Your task to perform on an android device: turn off sleep mode Image 0: 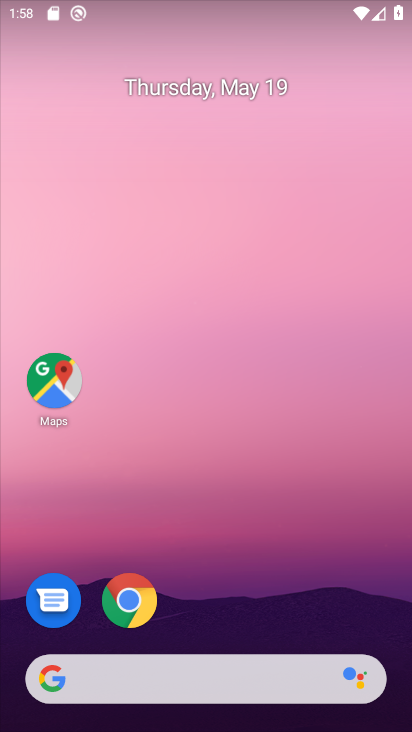
Step 0: drag from (212, 652) to (216, 244)
Your task to perform on an android device: turn off sleep mode Image 1: 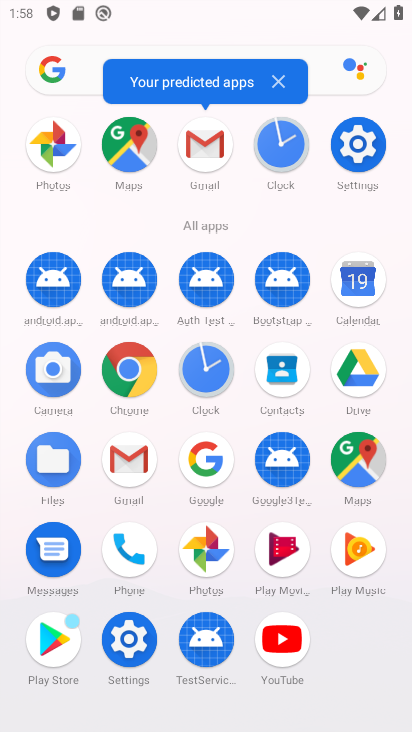
Step 1: click (360, 144)
Your task to perform on an android device: turn off sleep mode Image 2: 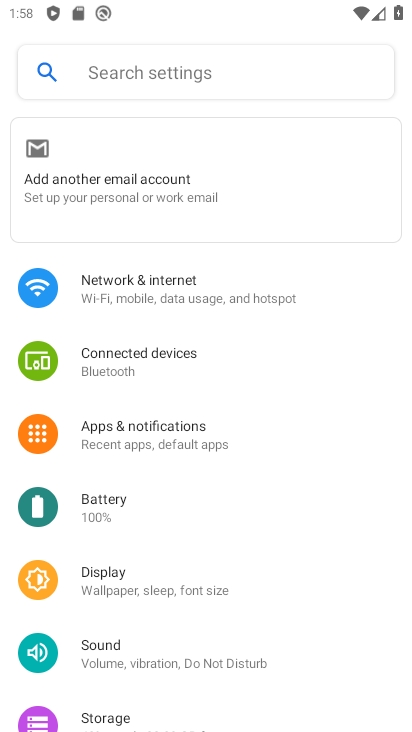
Step 2: click (166, 598)
Your task to perform on an android device: turn off sleep mode Image 3: 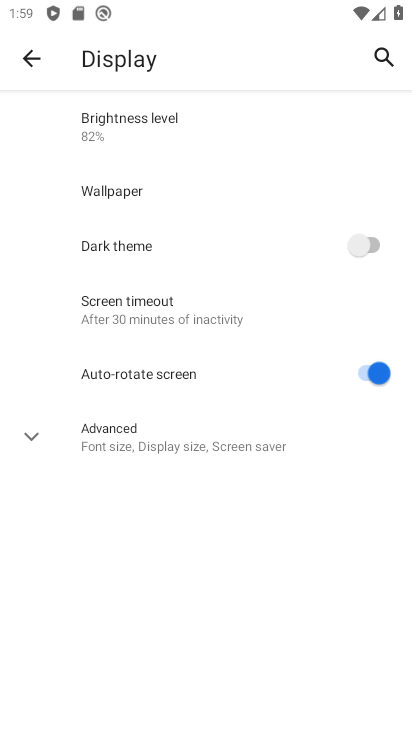
Step 3: click (148, 304)
Your task to perform on an android device: turn off sleep mode Image 4: 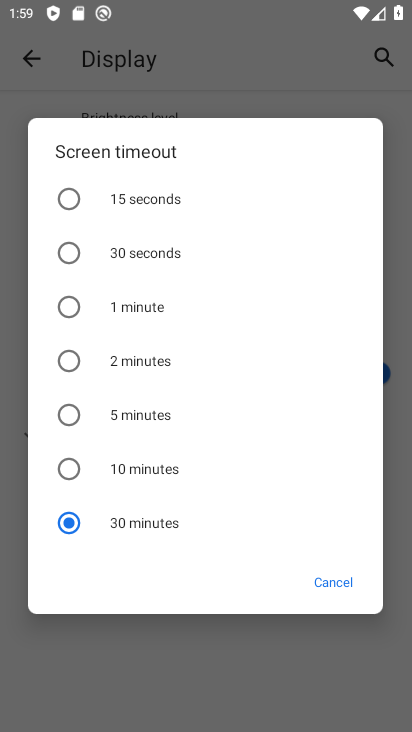
Step 4: click (135, 196)
Your task to perform on an android device: turn off sleep mode Image 5: 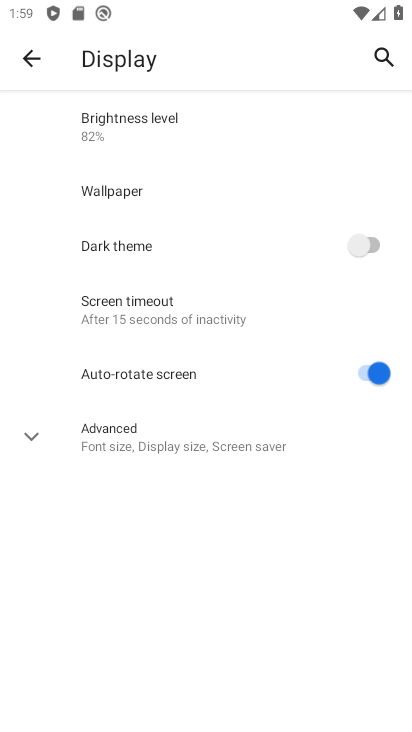
Step 5: task complete